Your task to perform on an android device: toggle javascript in the chrome app Image 0: 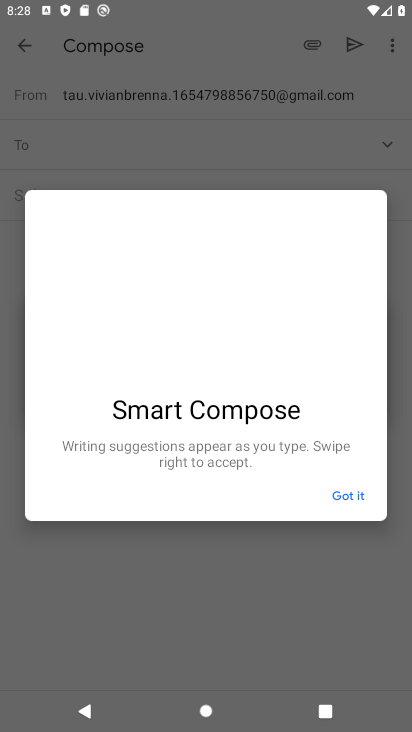
Step 0: press home button
Your task to perform on an android device: toggle javascript in the chrome app Image 1: 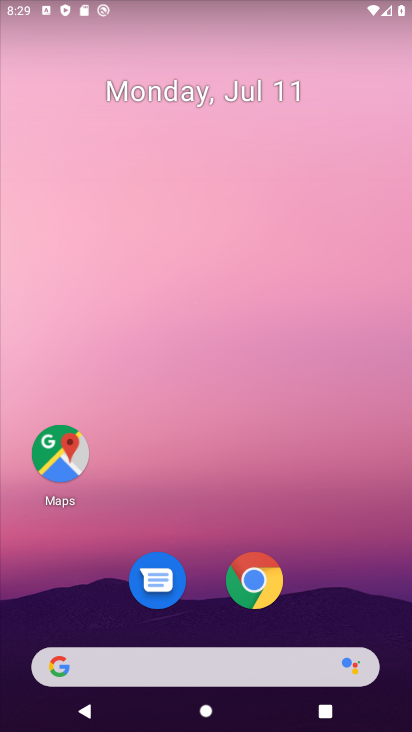
Step 1: drag from (394, 652) to (296, 1)
Your task to perform on an android device: toggle javascript in the chrome app Image 2: 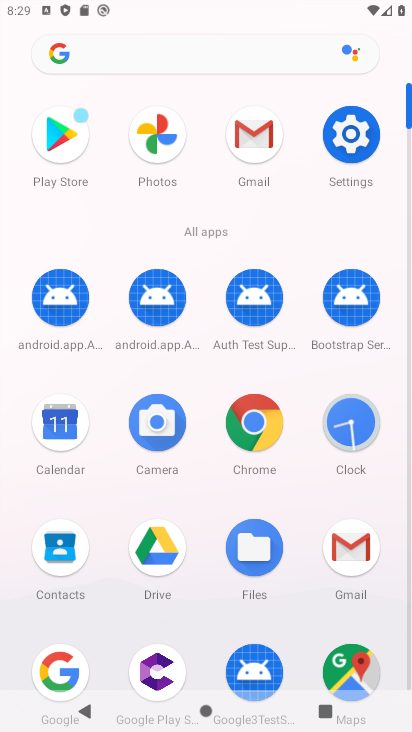
Step 2: click (253, 425)
Your task to perform on an android device: toggle javascript in the chrome app Image 3: 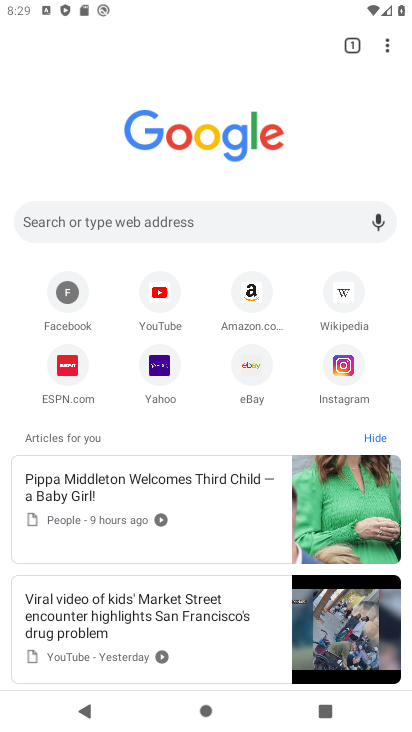
Step 3: click (385, 46)
Your task to perform on an android device: toggle javascript in the chrome app Image 4: 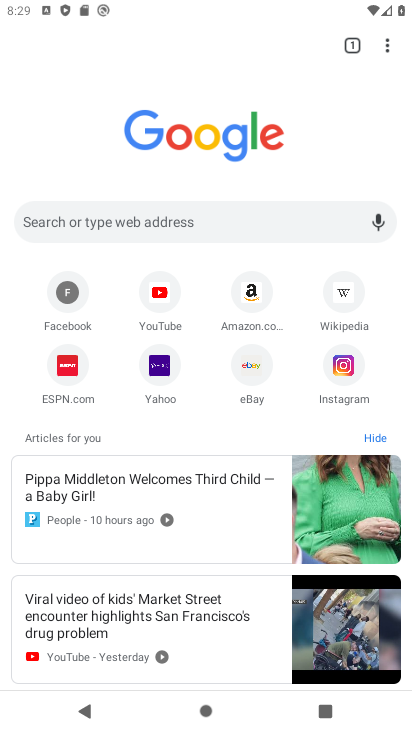
Step 4: click (385, 42)
Your task to perform on an android device: toggle javascript in the chrome app Image 5: 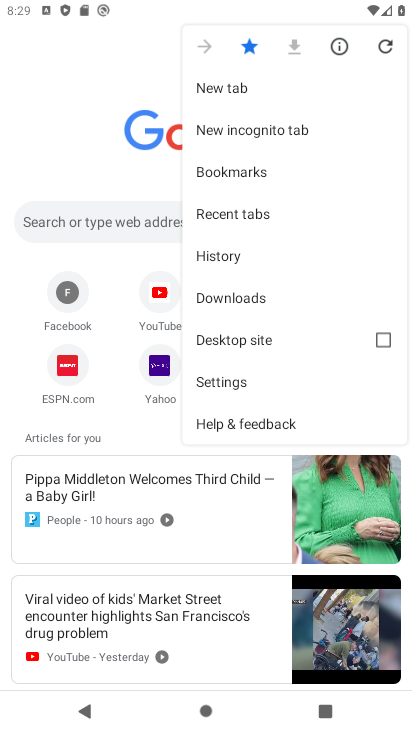
Step 5: click (252, 378)
Your task to perform on an android device: toggle javascript in the chrome app Image 6: 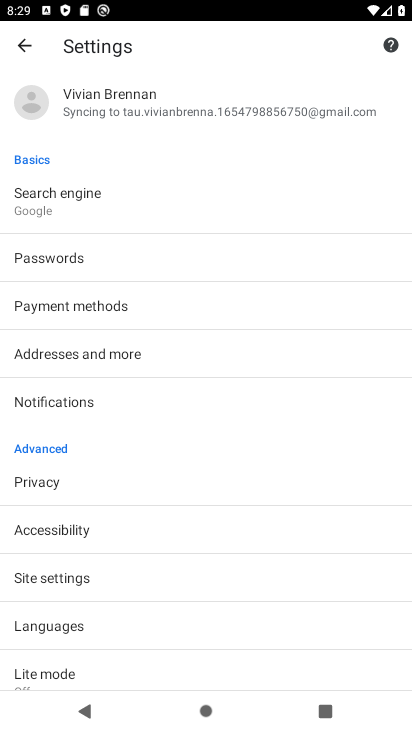
Step 6: click (102, 568)
Your task to perform on an android device: toggle javascript in the chrome app Image 7: 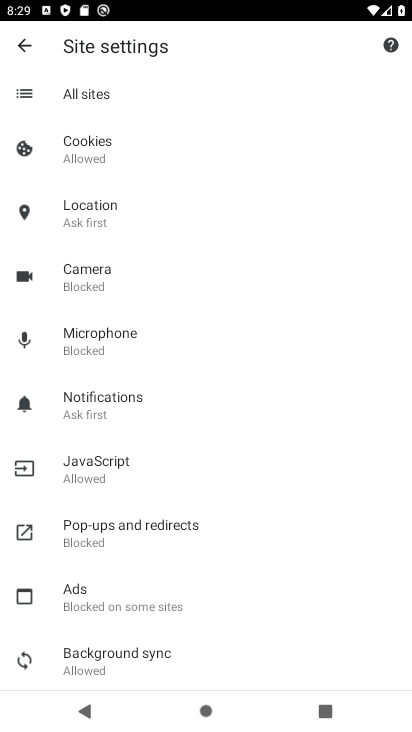
Step 7: click (129, 477)
Your task to perform on an android device: toggle javascript in the chrome app Image 8: 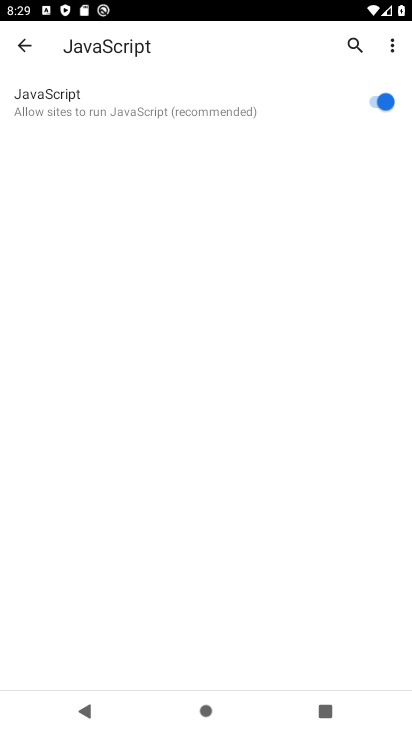
Step 8: click (347, 113)
Your task to perform on an android device: toggle javascript in the chrome app Image 9: 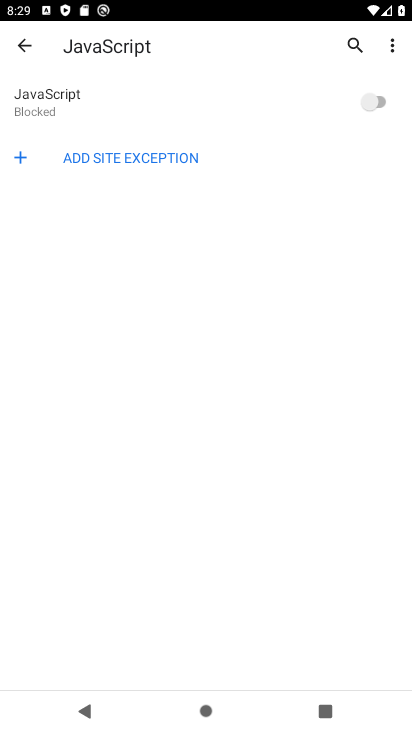
Step 9: task complete